Your task to perform on an android device: Open location settings Image 0: 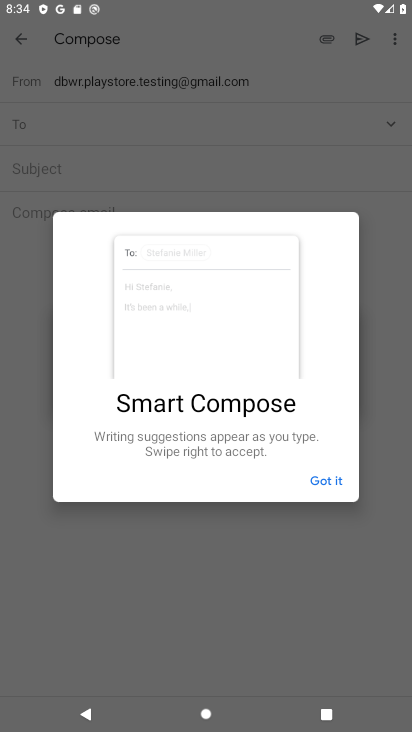
Step 0: press home button
Your task to perform on an android device: Open location settings Image 1: 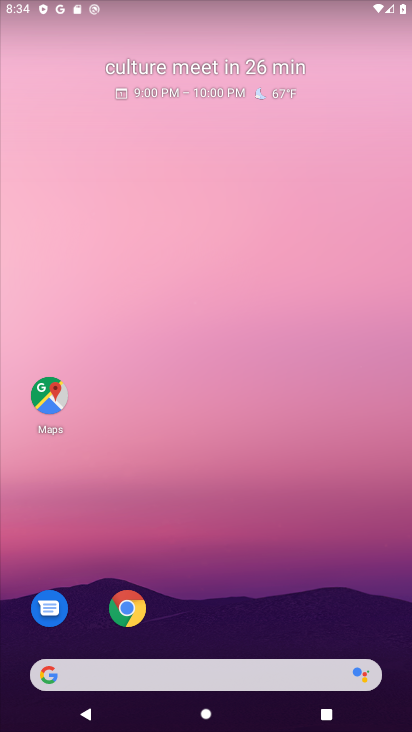
Step 1: drag from (293, 628) to (253, 116)
Your task to perform on an android device: Open location settings Image 2: 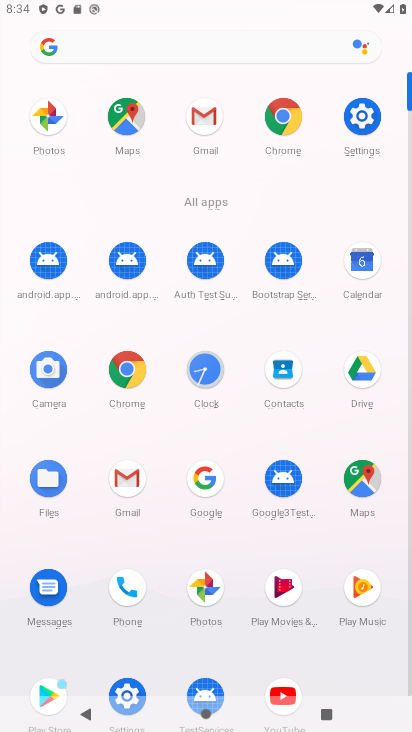
Step 2: click (351, 134)
Your task to perform on an android device: Open location settings Image 3: 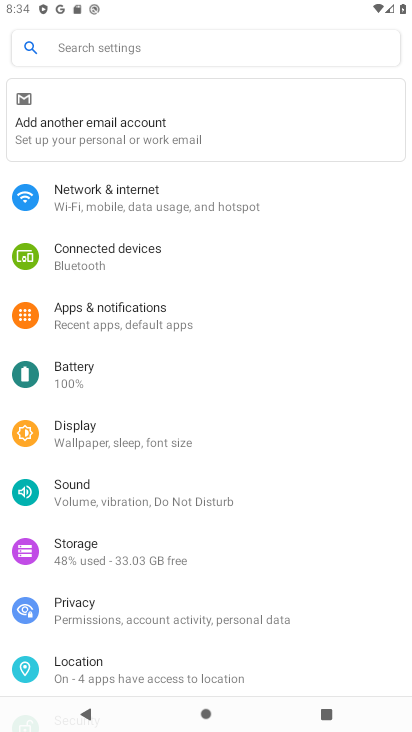
Step 3: click (96, 668)
Your task to perform on an android device: Open location settings Image 4: 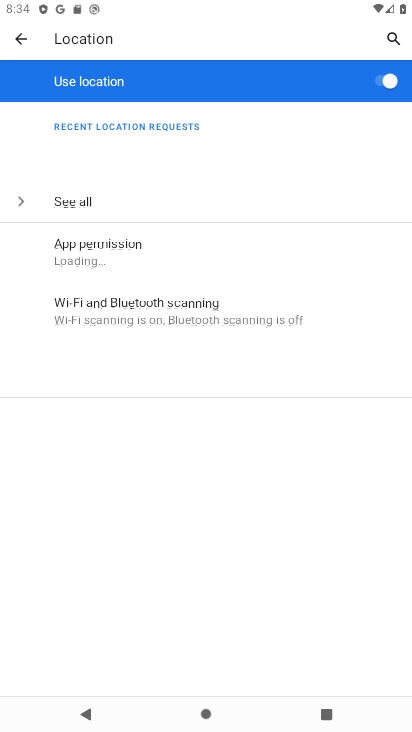
Step 4: task complete